Your task to perform on an android device: Go to notification settings Image 0: 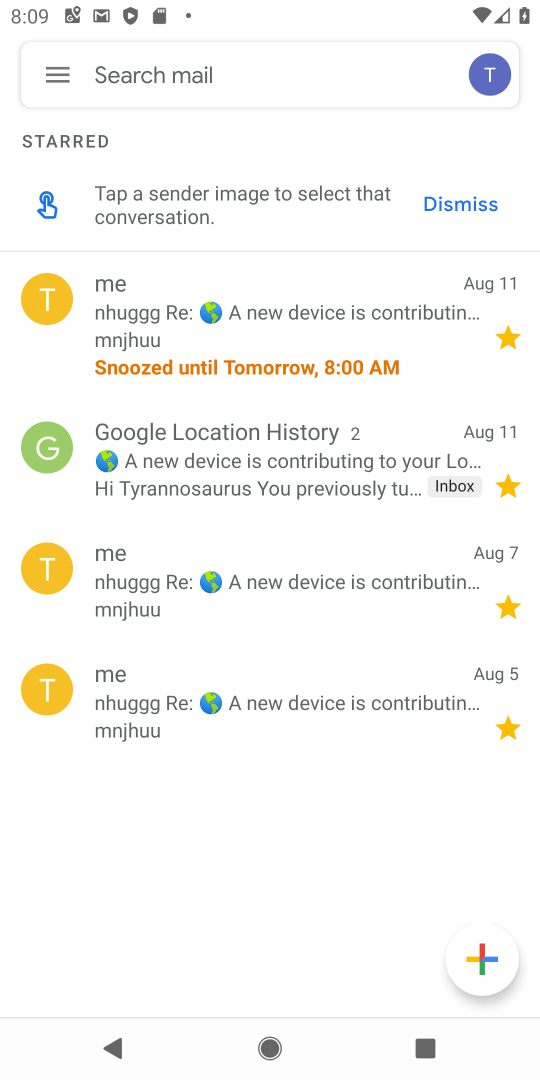
Step 0: press home button
Your task to perform on an android device: Go to notification settings Image 1: 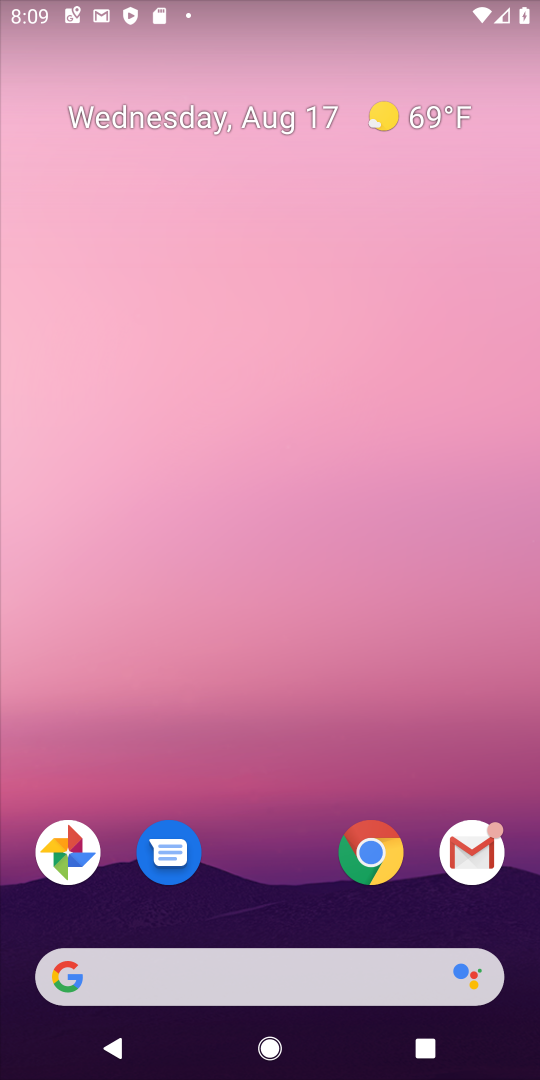
Step 1: drag from (268, 882) to (167, 117)
Your task to perform on an android device: Go to notification settings Image 2: 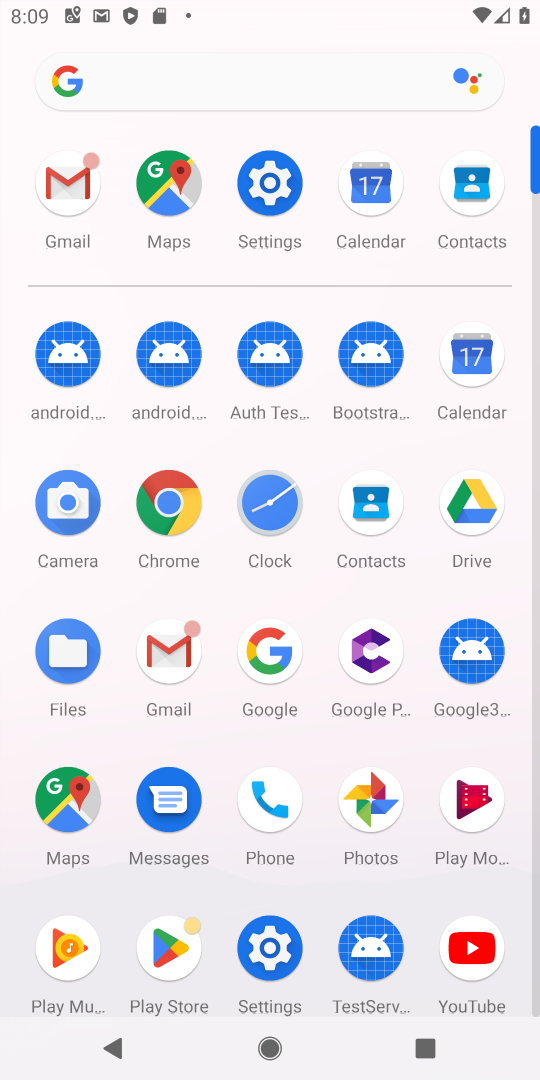
Step 2: click (273, 189)
Your task to perform on an android device: Go to notification settings Image 3: 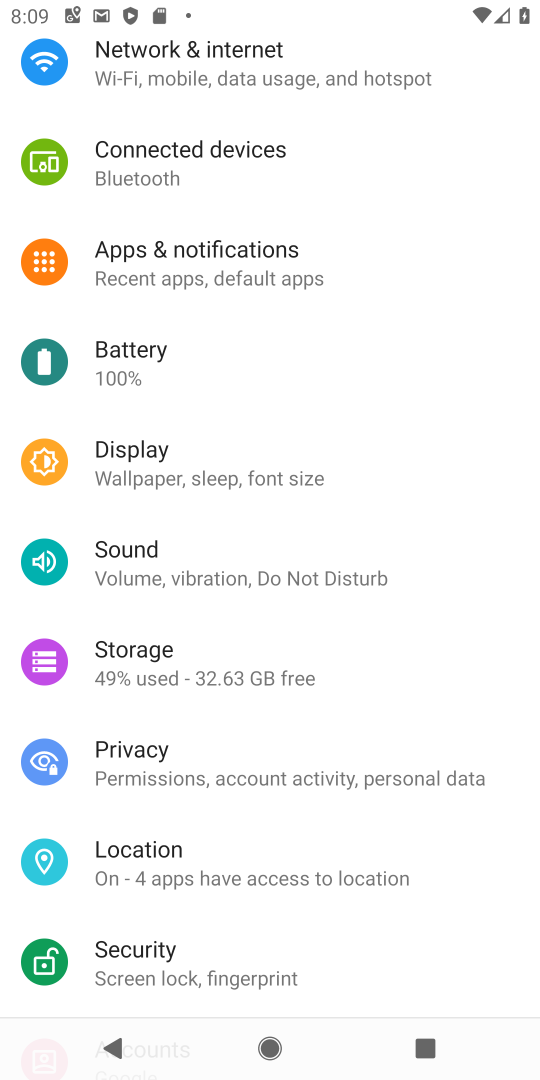
Step 3: click (203, 249)
Your task to perform on an android device: Go to notification settings Image 4: 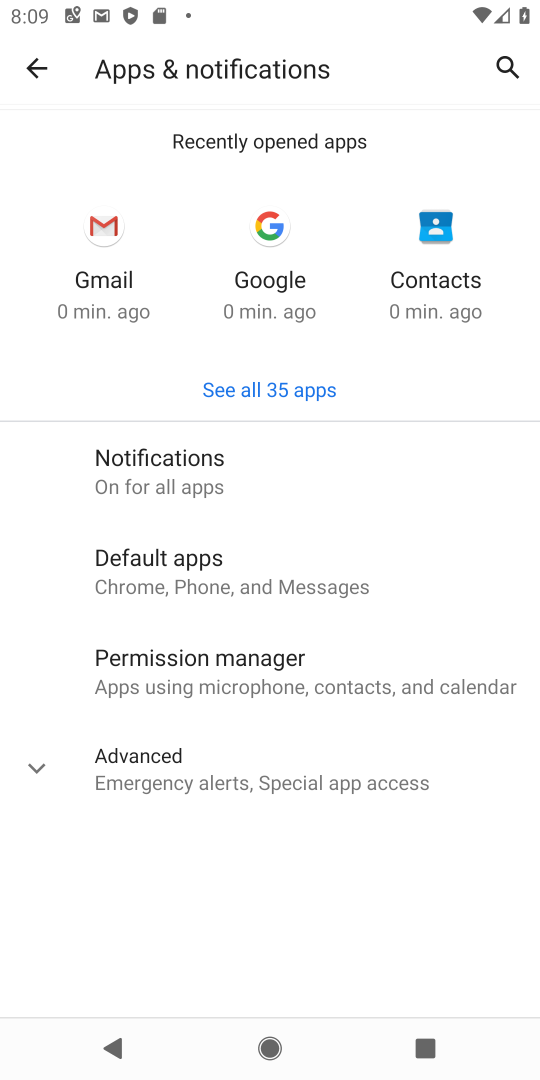
Step 4: task complete